Your task to perform on an android device: Open Maps and search for coffee Image 0: 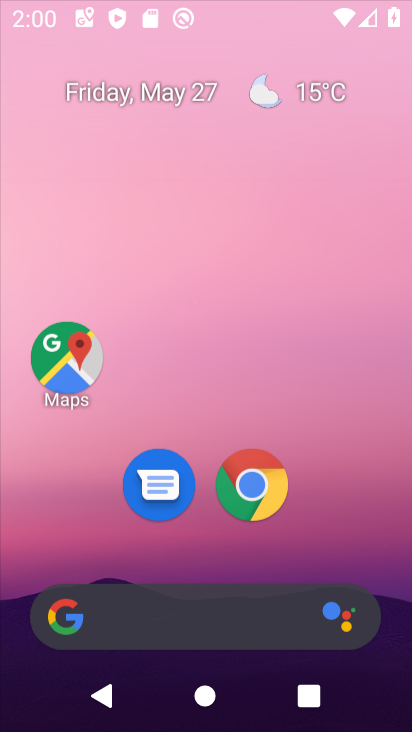
Step 0: click (222, 681)
Your task to perform on an android device: Open Maps and search for coffee Image 1: 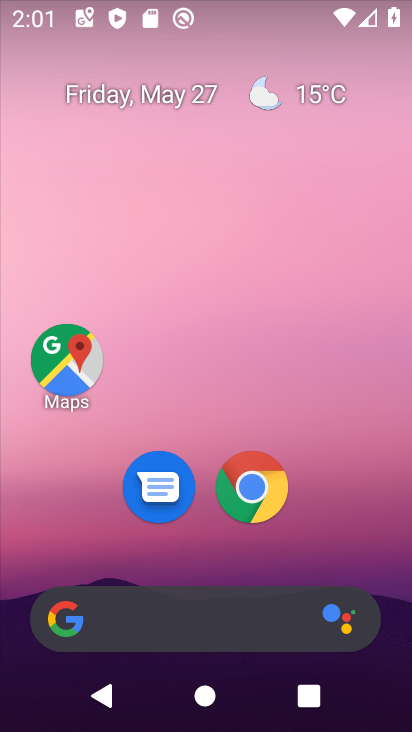
Step 1: click (69, 368)
Your task to perform on an android device: Open Maps and search for coffee Image 2: 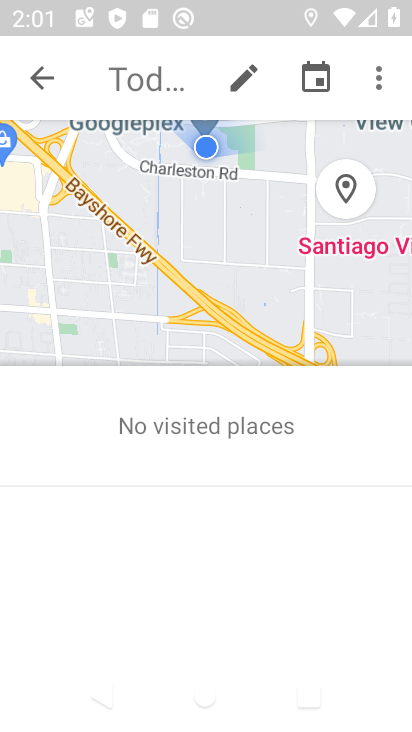
Step 2: click (33, 75)
Your task to perform on an android device: Open Maps and search for coffee Image 3: 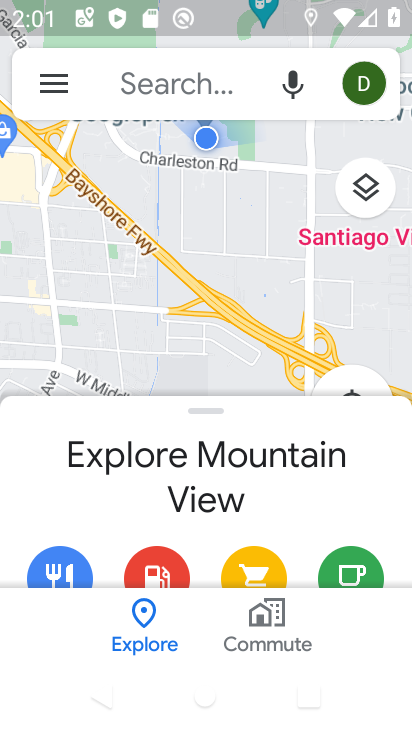
Step 3: click (128, 81)
Your task to perform on an android device: Open Maps and search for coffee Image 4: 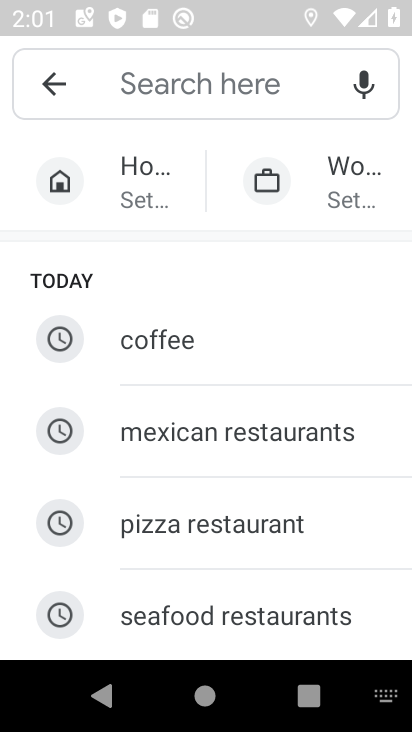
Step 4: click (132, 339)
Your task to perform on an android device: Open Maps and search for coffee Image 5: 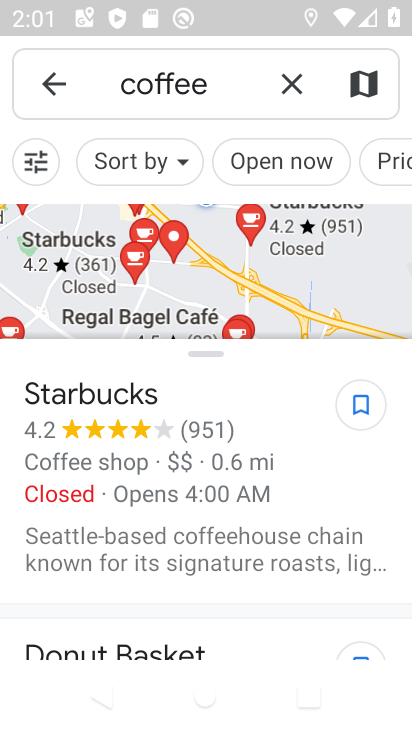
Step 5: task complete